Your task to perform on an android device: Go to ESPN.com Image 0: 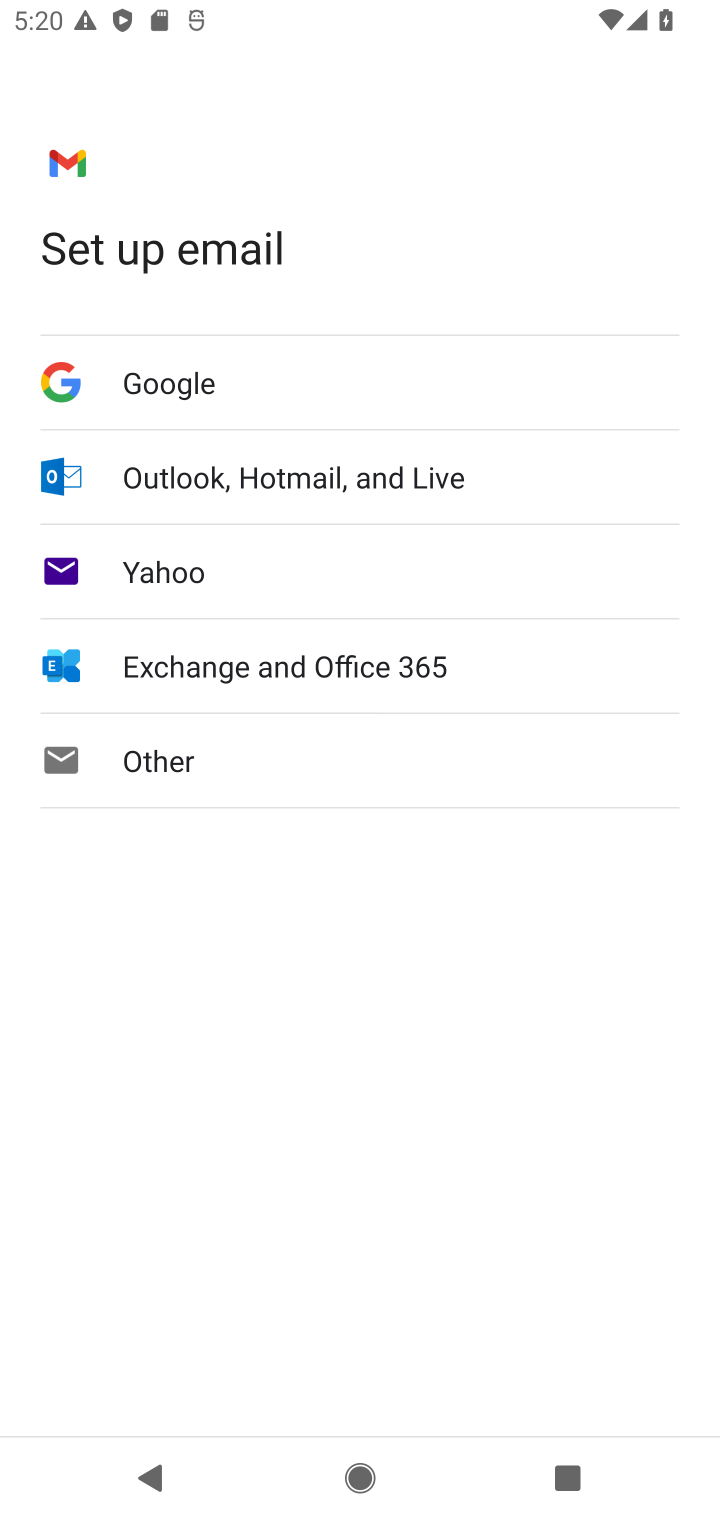
Step 0: press home button
Your task to perform on an android device: Go to ESPN.com Image 1: 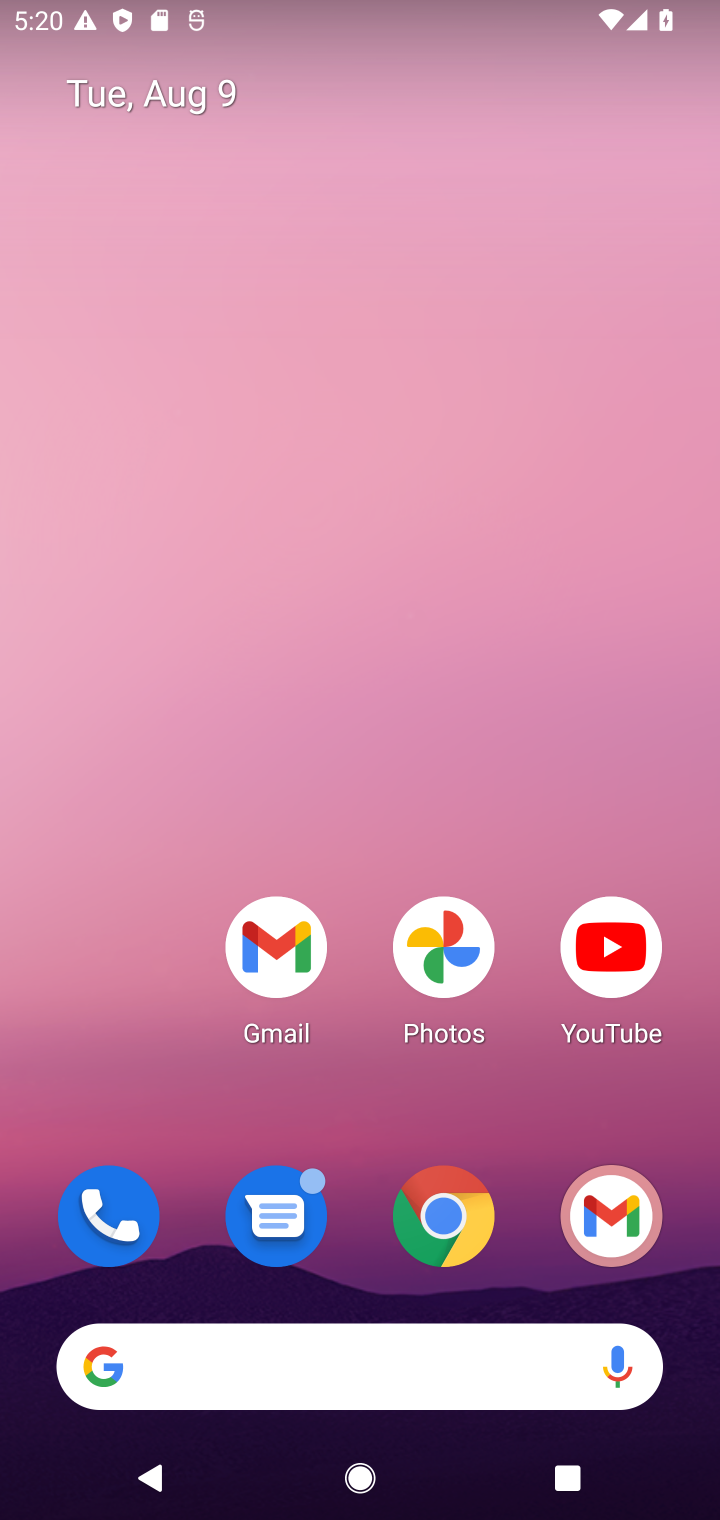
Step 1: click (449, 1219)
Your task to perform on an android device: Go to ESPN.com Image 2: 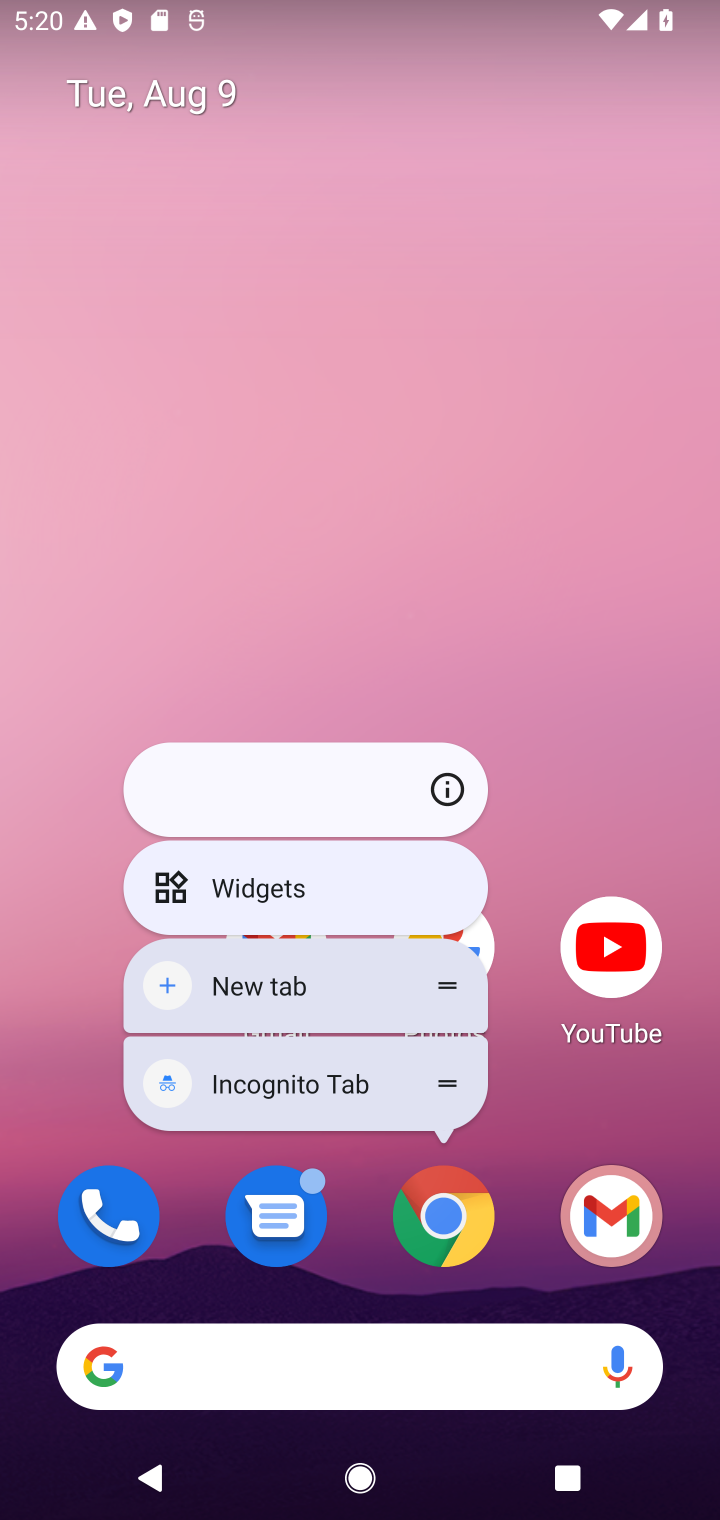
Step 2: click (449, 1219)
Your task to perform on an android device: Go to ESPN.com Image 3: 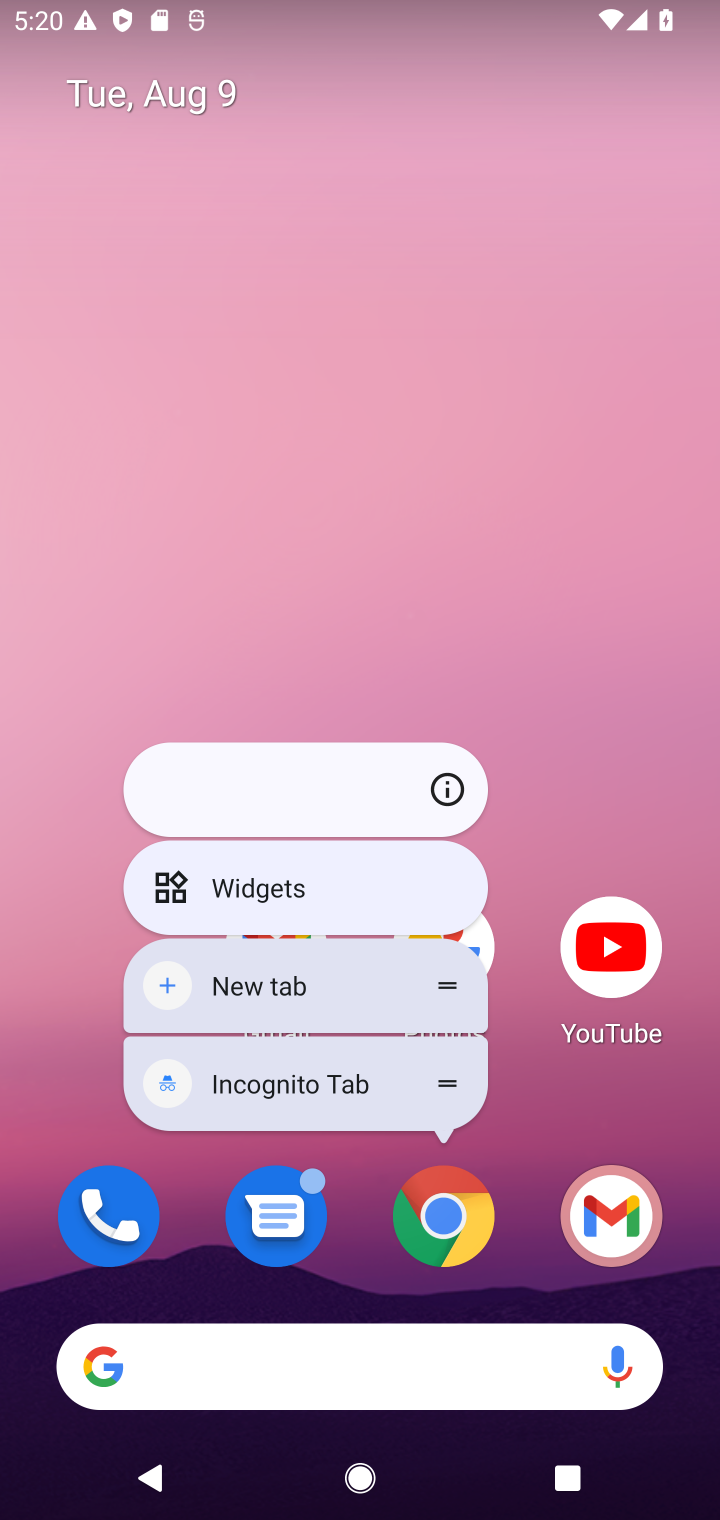
Step 3: click (447, 1230)
Your task to perform on an android device: Go to ESPN.com Image 4: 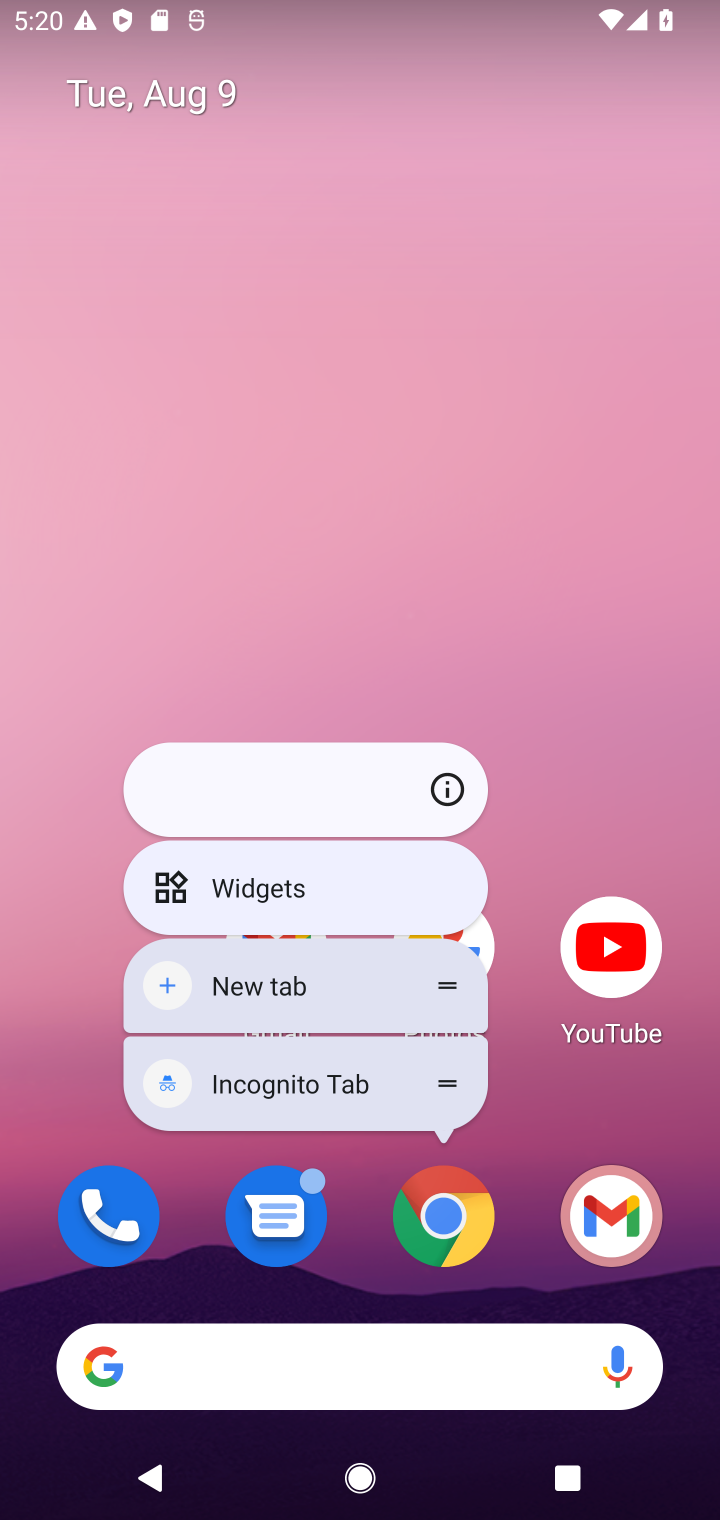
Step 4: click (420, 1206)
Your task to perform on an android device: Go to ESPN.com Image 5: 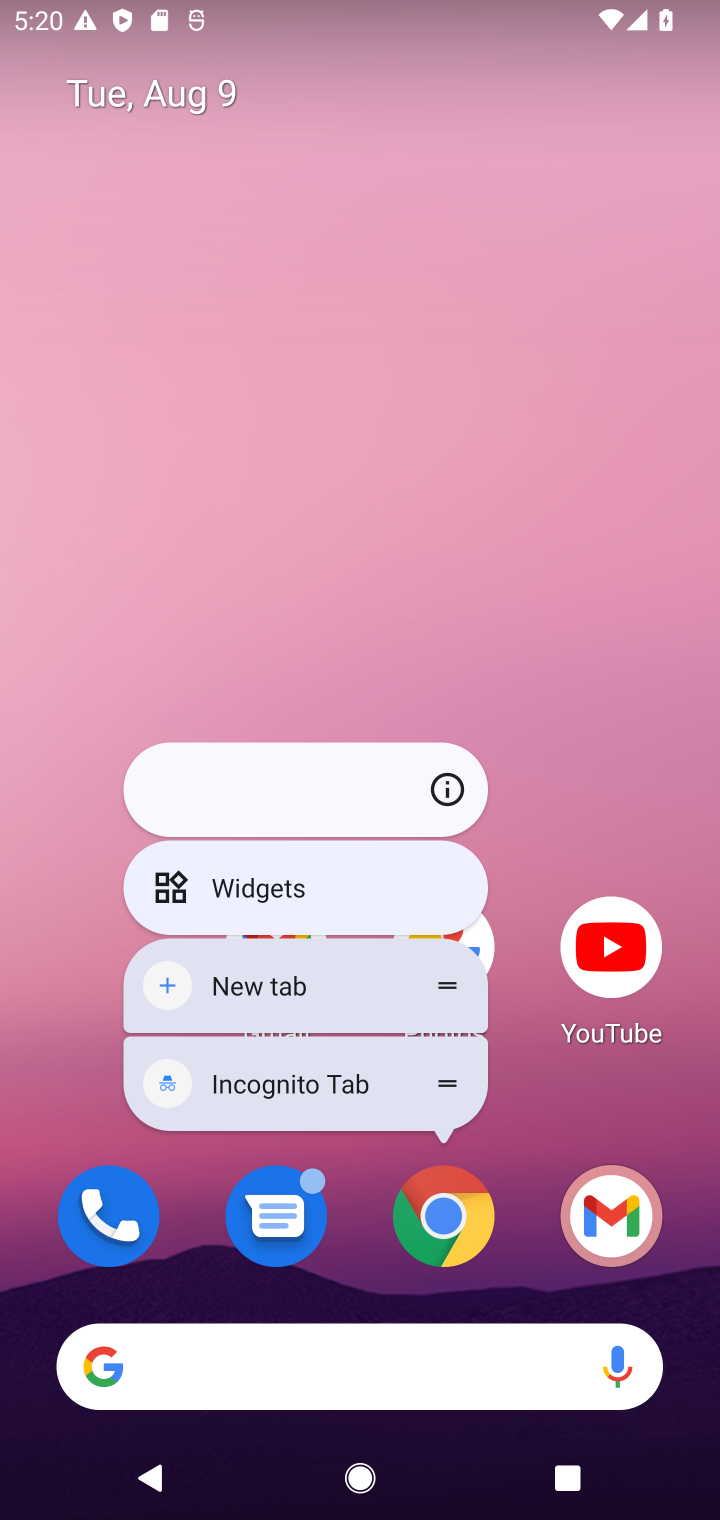
Step 5: click (440, 1226)
Your task to perform on an android device: Go to ESPN.com Image 6: 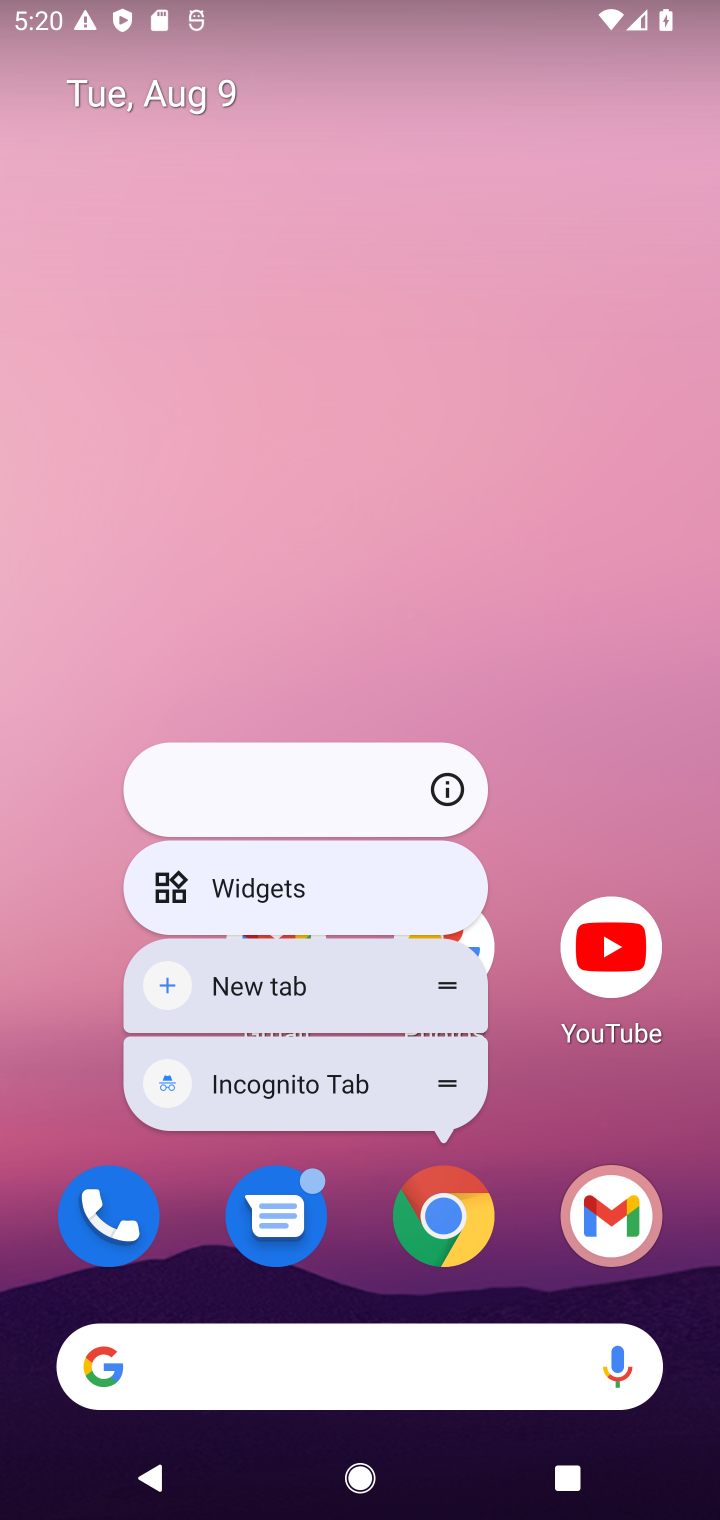
Step 6: click (438, 1220)
Your task to perform on an android device: Go to ESPN.com Image 7: 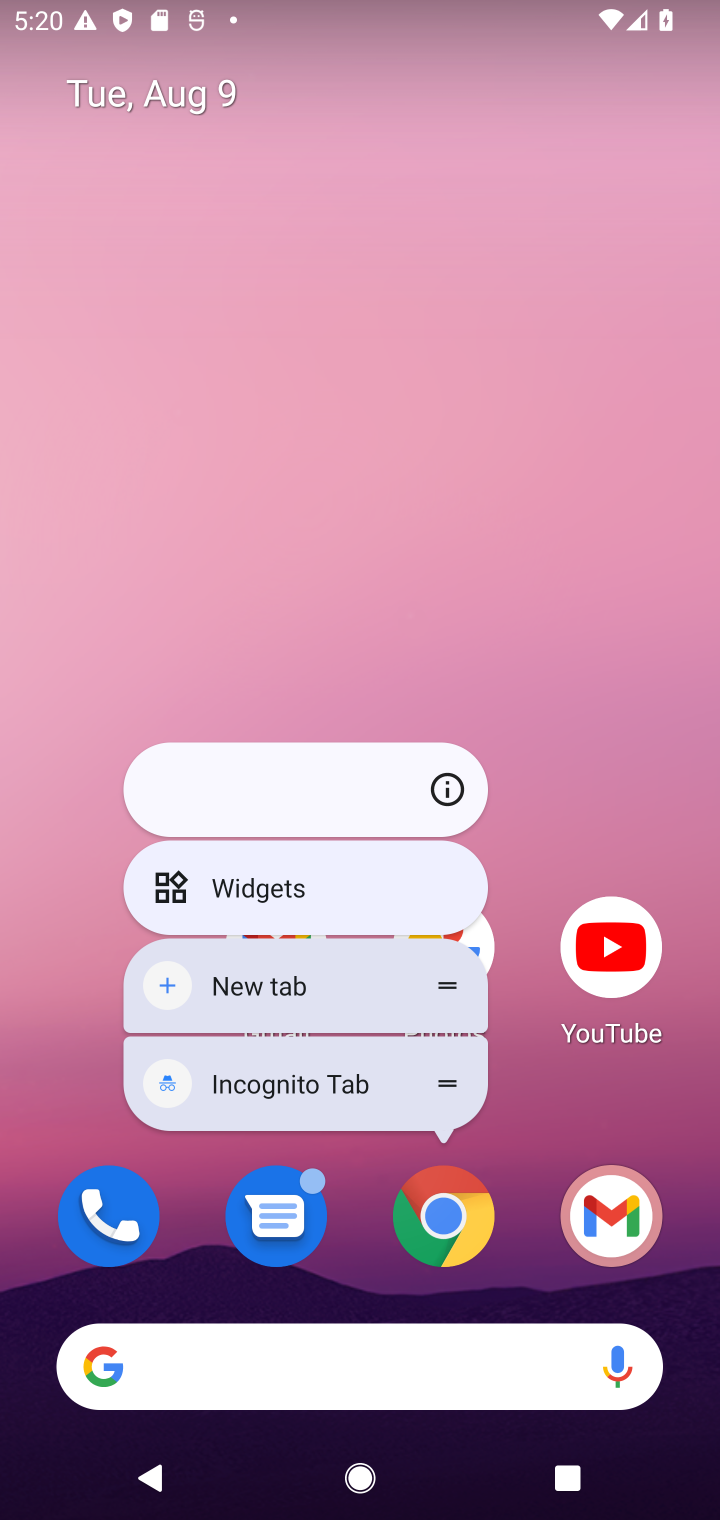
Step 7: click (463, 1229)
Your task to perform on an android device: Go to ESPN.com Image 8: 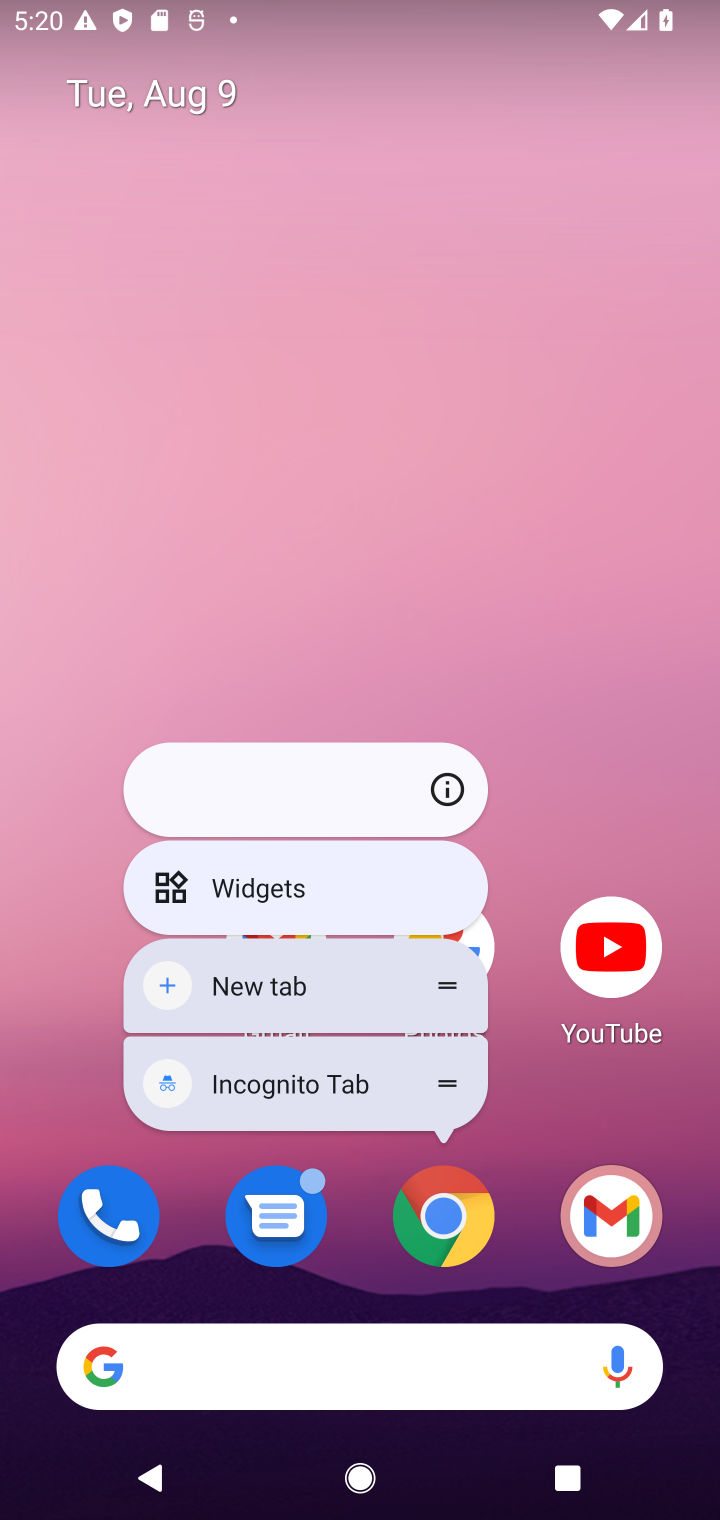
Step 8: click (453, 1220)
Your task to perform on an android device: Go to ESPN.com Image 9: 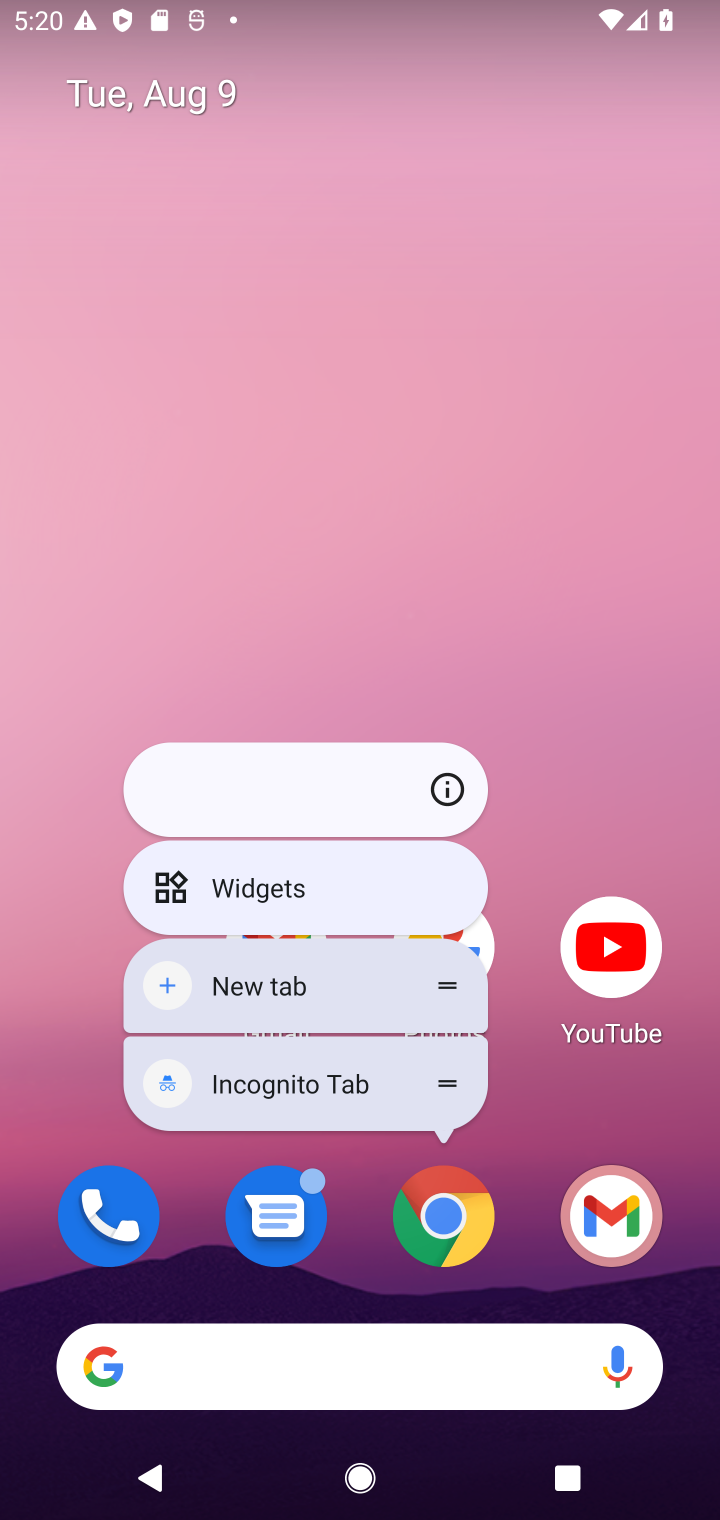
Step 9: click (453, 1220)
Your task to perform on an android device: Go to ESPN.com Image 10: 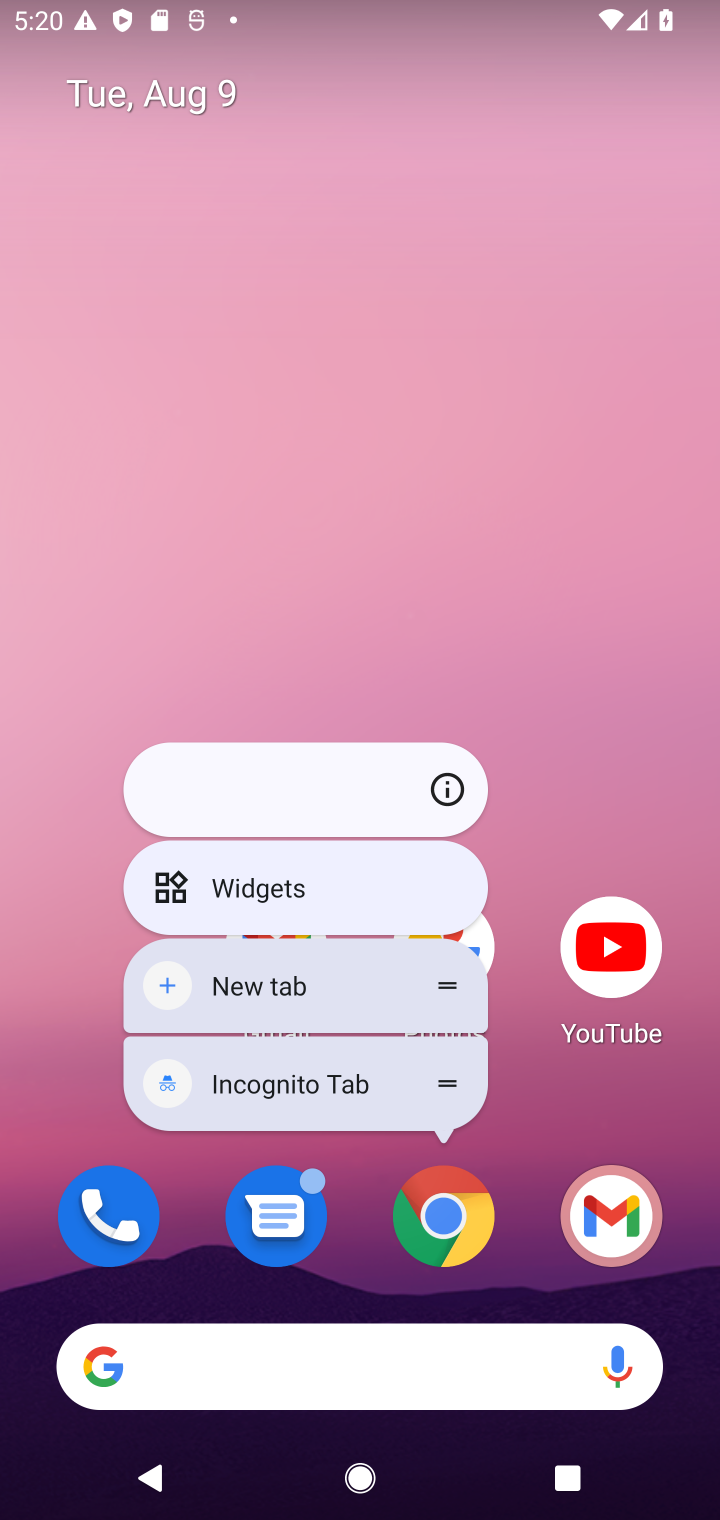
Step 10: click (449, 1218)
Your task to perform on an android device: Go to ESPN.com Image 11: 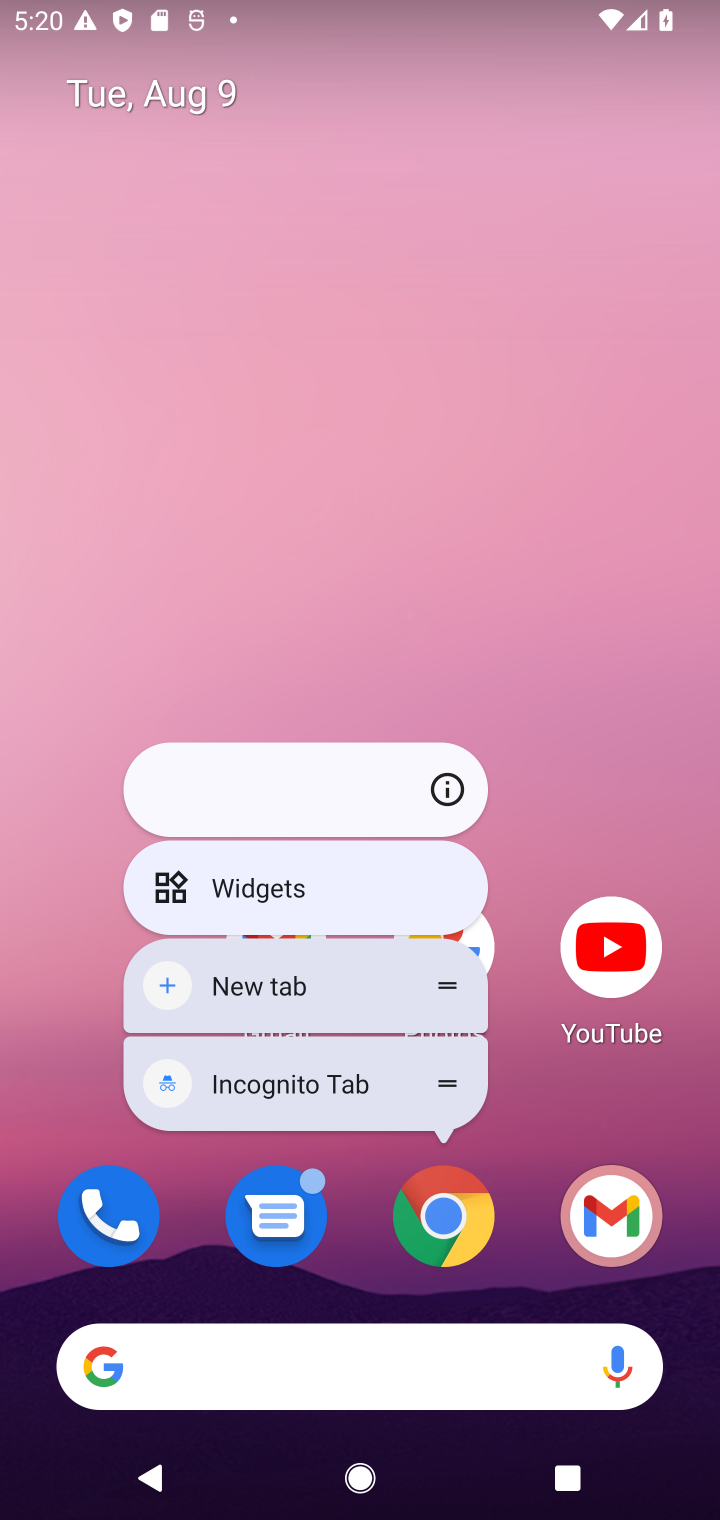
Step 11: click (412, 1232)
Your task to perform on an android device: Go to ESPN.com Image 12: 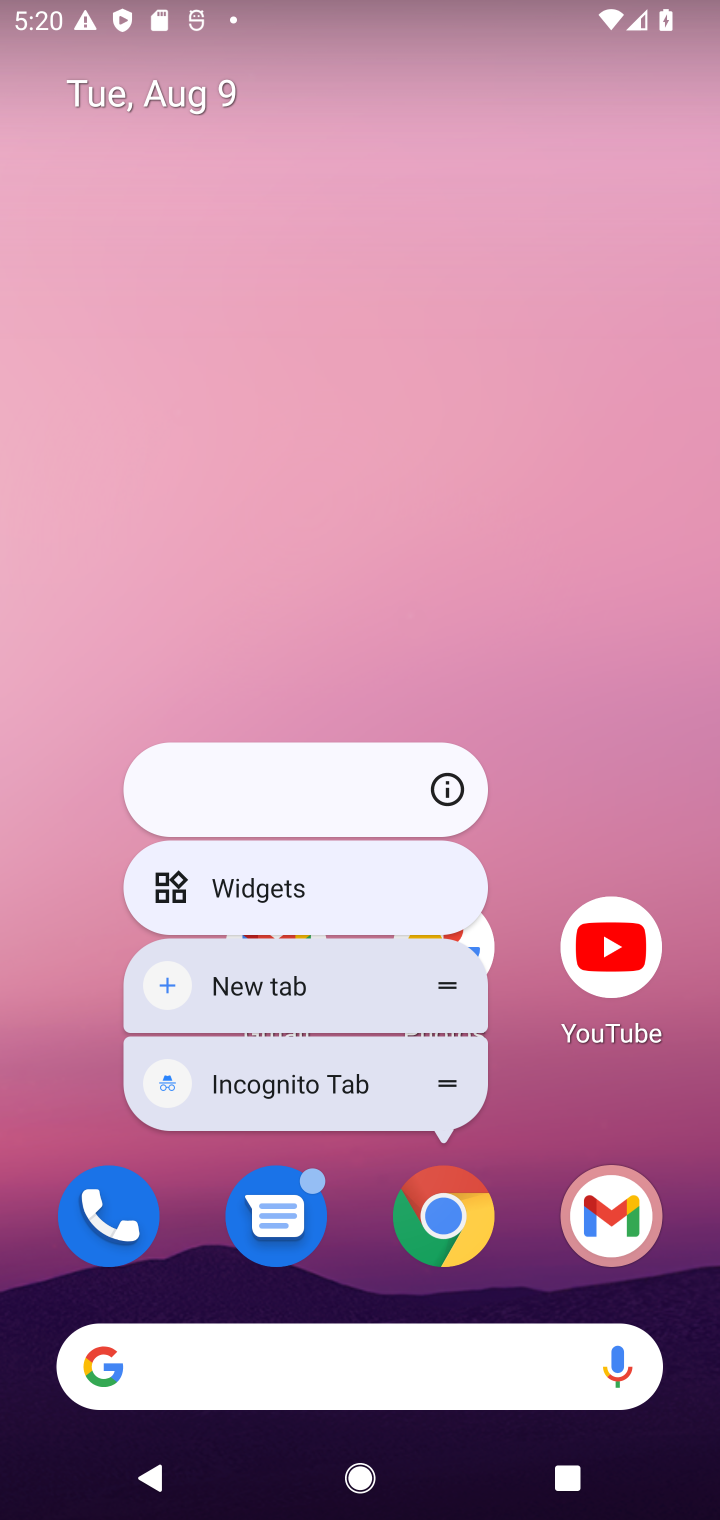
Step 12: click (437, 1234)
Your task to perform on an android device: Go to ESPN.com Image 13: 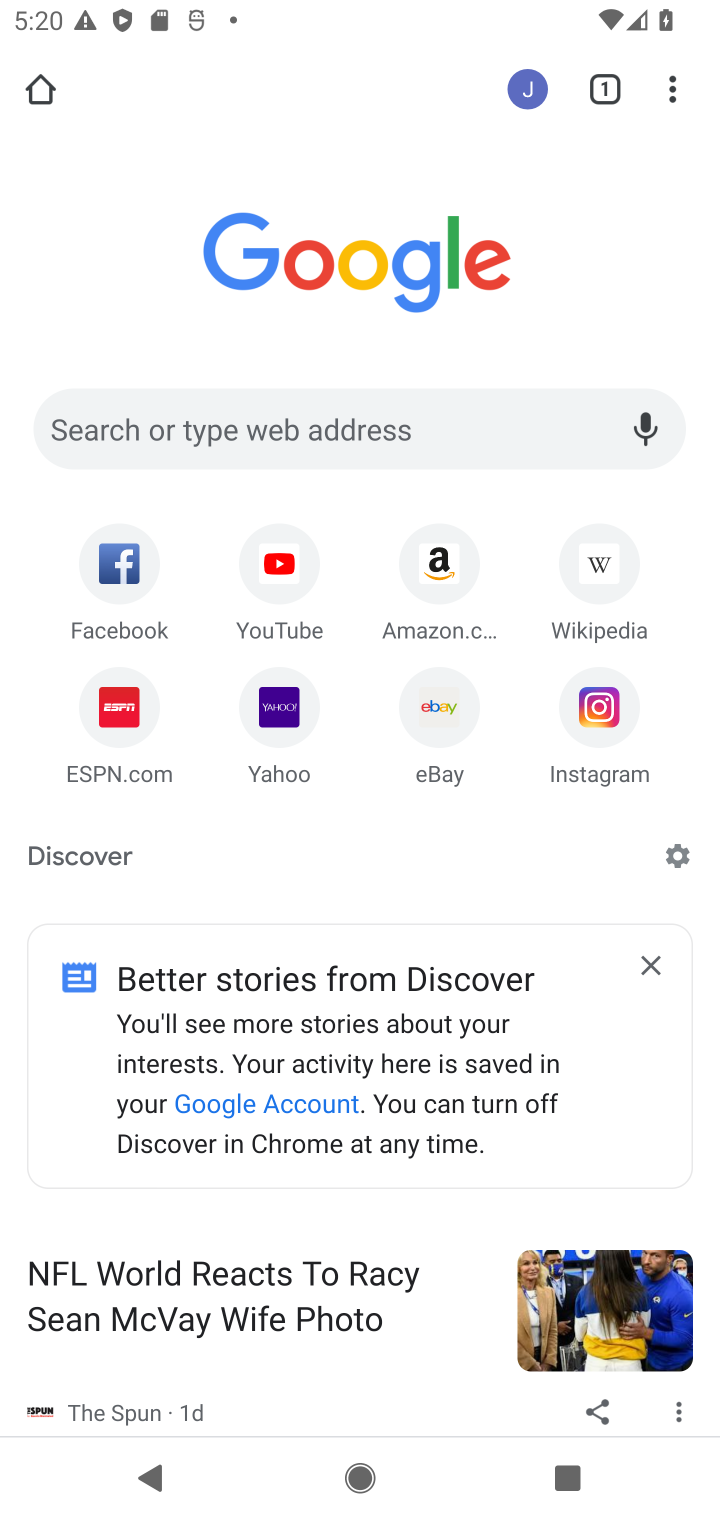
Step 13: click (114, 701)
Your task to perform on an android device: Go to ESPN.com Image 14: 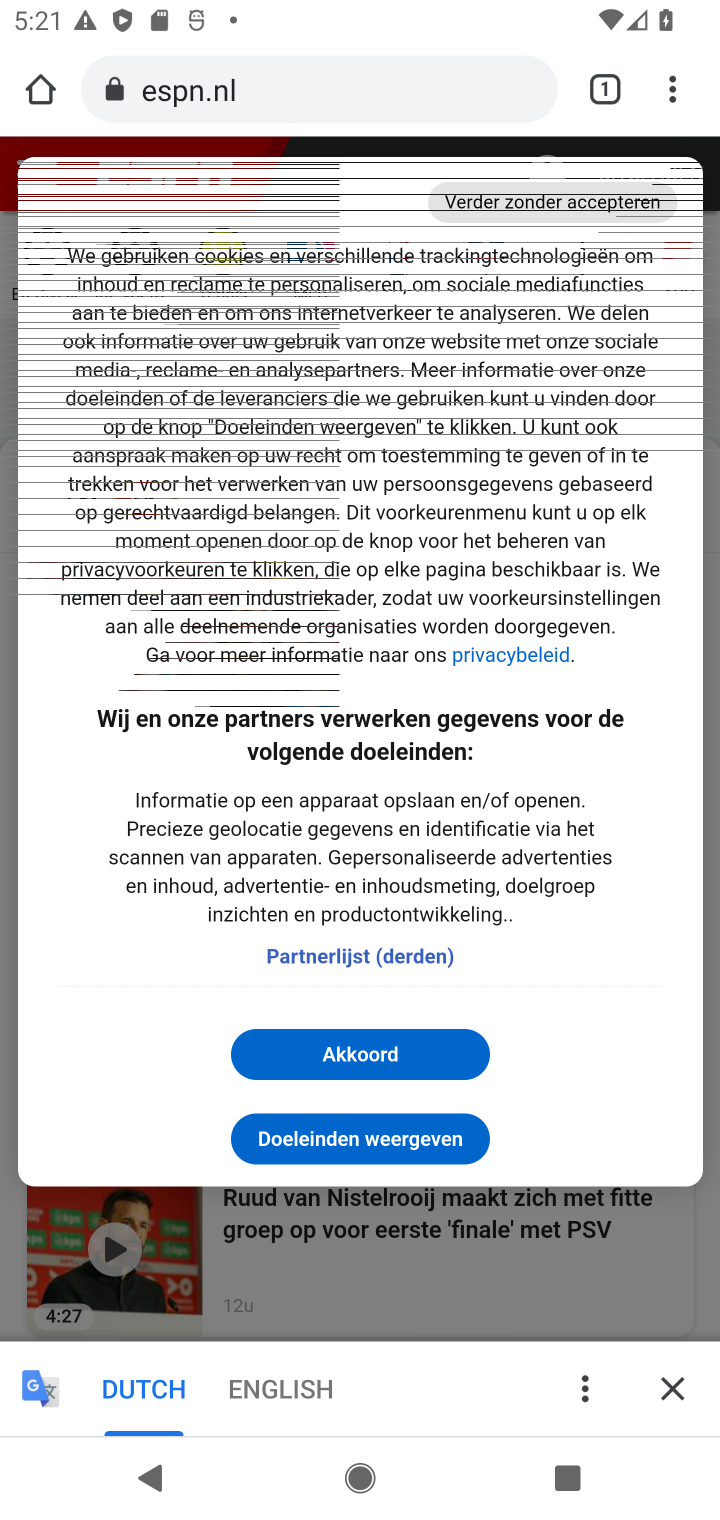
Step 14: task complete